Your task to perform on an android device: find which apps use the phone's location Image 0: 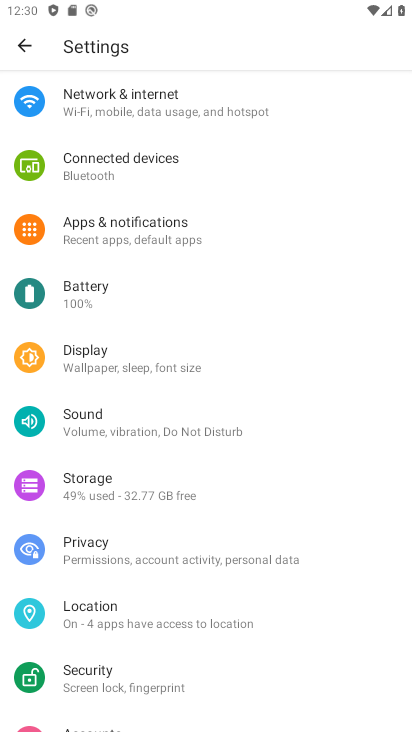
Step 0: click (103, 602)
Your task to perform on an android device: find which apps use the phone's location Image 1: 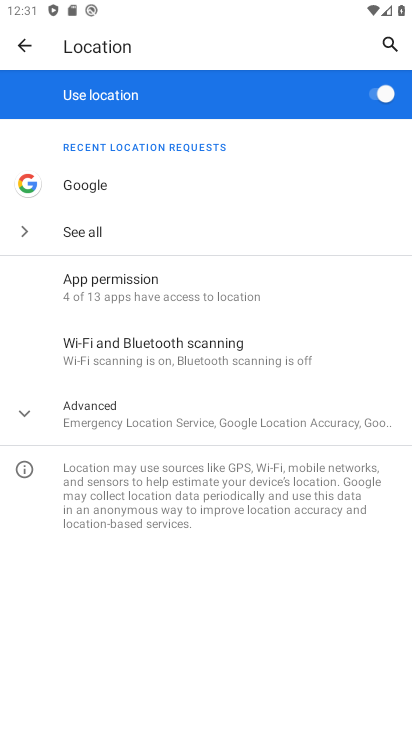
Step 1: click (129, 288)
Your task to perform on an android device: find which apps use the phone's location Image 2: 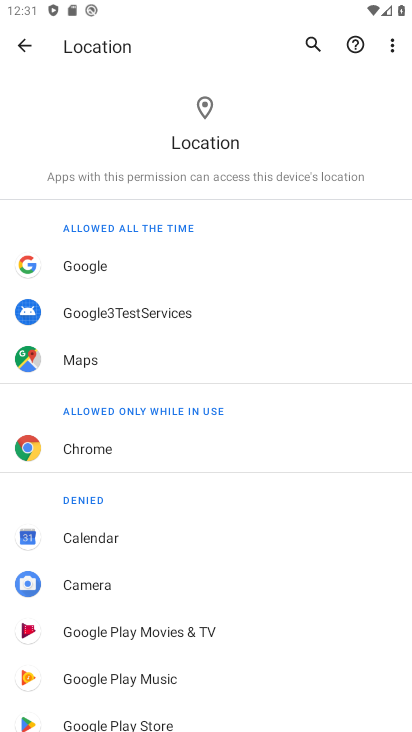
Step 2: task complete